Your task to perform on an android device: move an email to a new category in the gmail app Image 0: 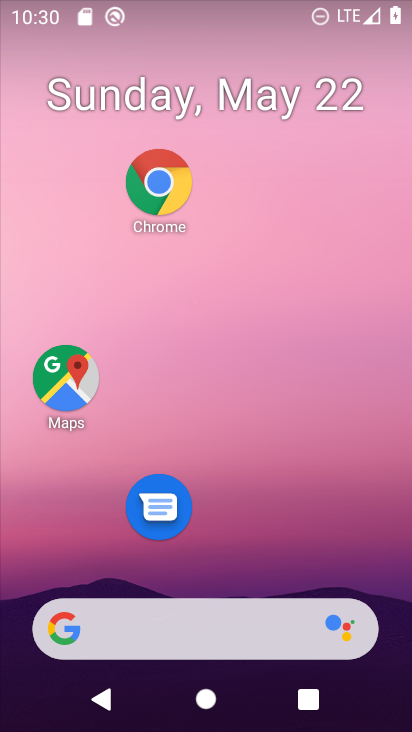
Step 0: drag from (151, 689) to (30, 411)
Your task to perform on an android device: move an email to a new category in the gmail app Image 1: 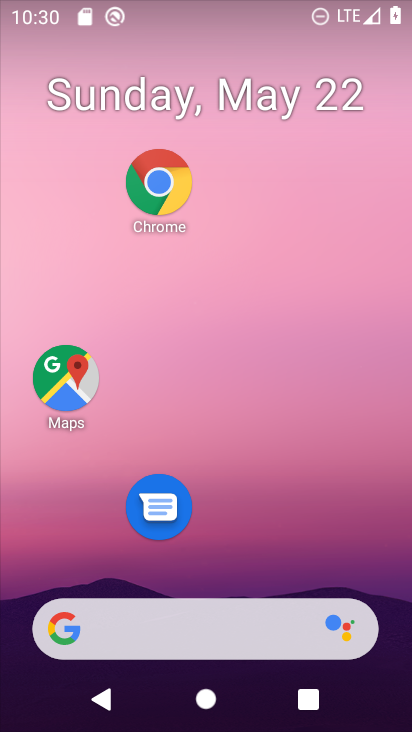
Step 1: drag from (249, 705) to (188, 46)
Your task to perform on an android device: move an email to a new category in the gmail app Image 2: 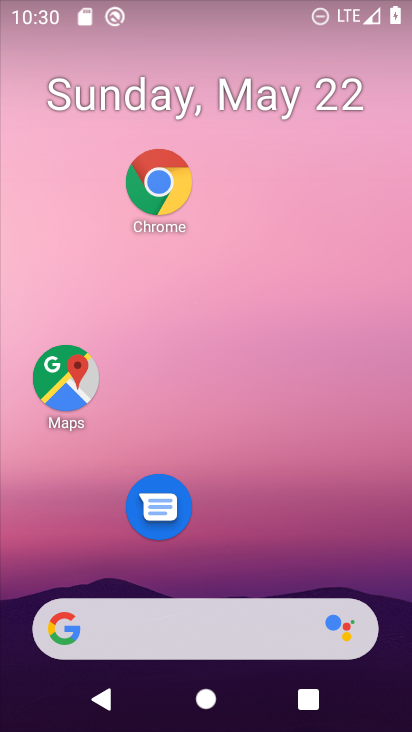
Step 2: drag from (262, 690) to (175, 21)
Your task to perform on an android device: move an email to a new category in the gmail app Image 3: 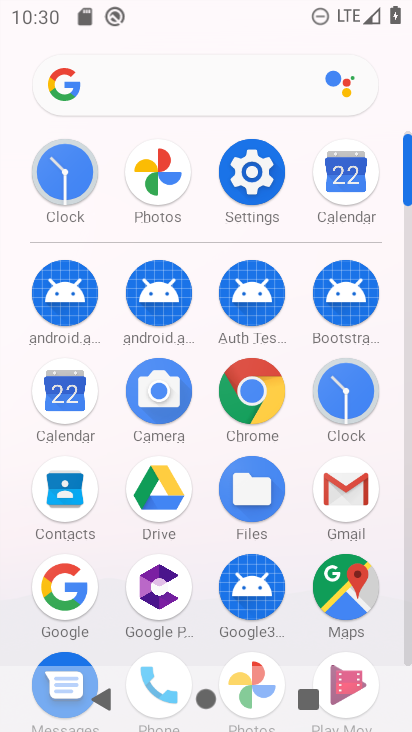
Step 3: click (343, 493)
Your task to perform on an android device: move an email to a new category in the gmail app Image 4: 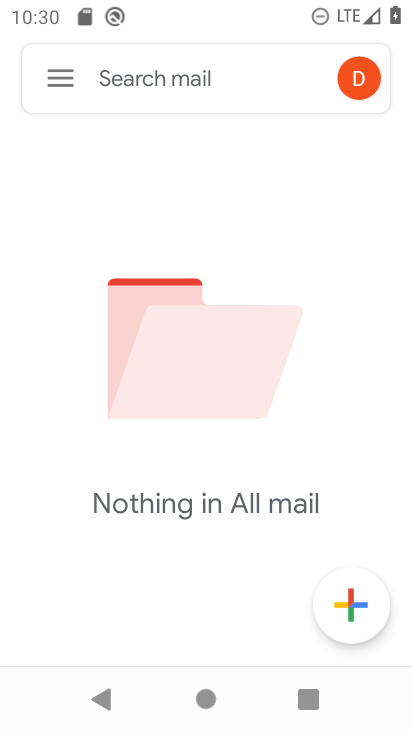
Step 4: task complete